Your task to perform on an android device: toggle pop-ups in chrome Image 0: 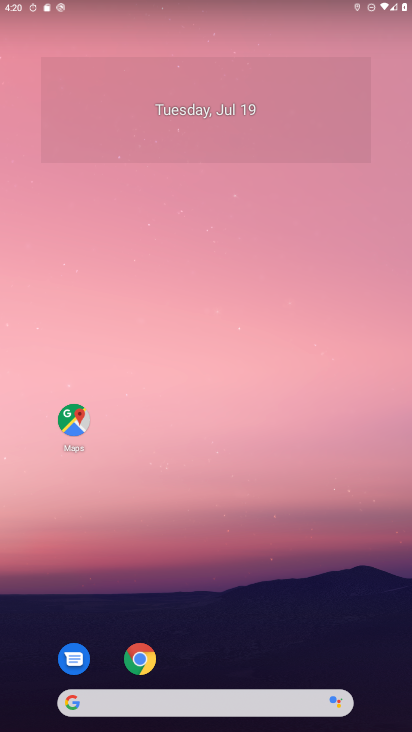
Step 0: drag from (234, 628) to (203, 41)
Your task to perform on an android device: toggle pop-ups in chrome Image 1: 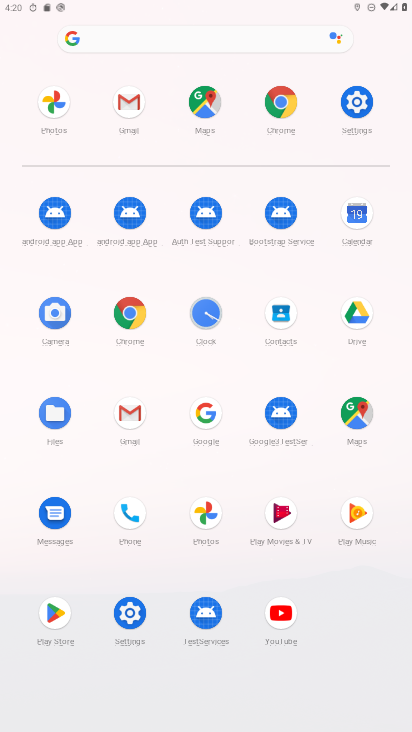
Step 1: click (289, 107)
Your task to perform on an android device: toggle pop-ups in chrome Image 2: 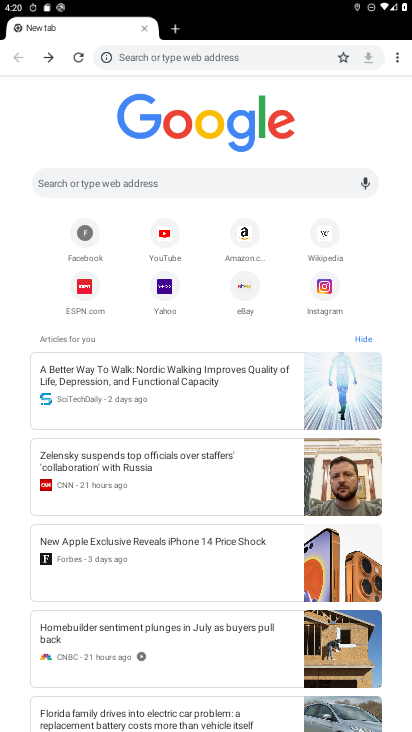
Step 2: drag from (390, 53) to (315, 261)
Your task to perform on an android device: toggle pop-ups in chrome Image 3: 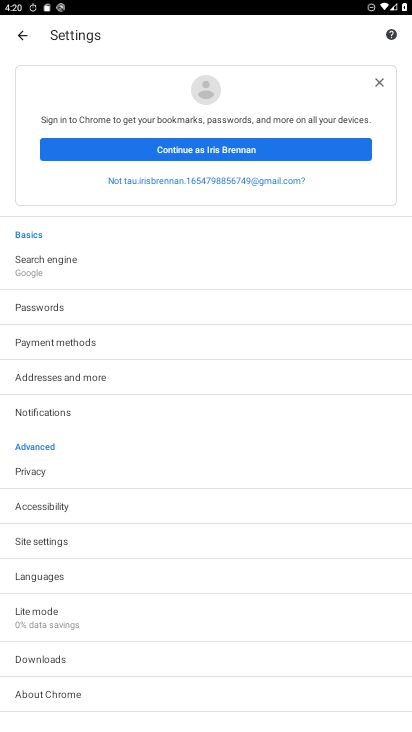
Step 3: click (54, 532)
Your task to perform on an android device: toggle pop-ups in chrome Image 4: 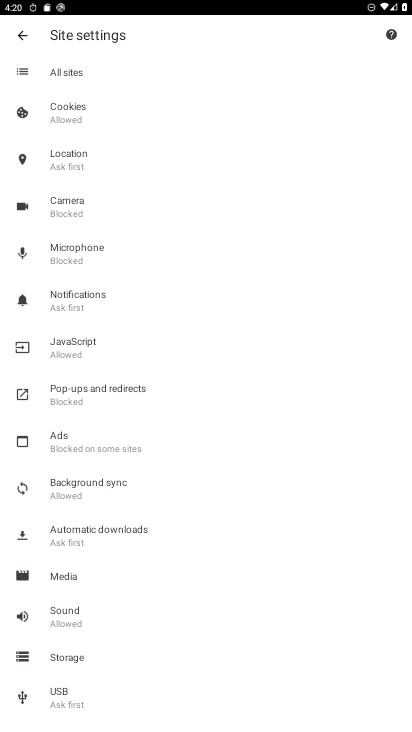
Step 4: click (48, 399)
Your task to perform on an android device: toggle pop-ups in chrome Image 5: 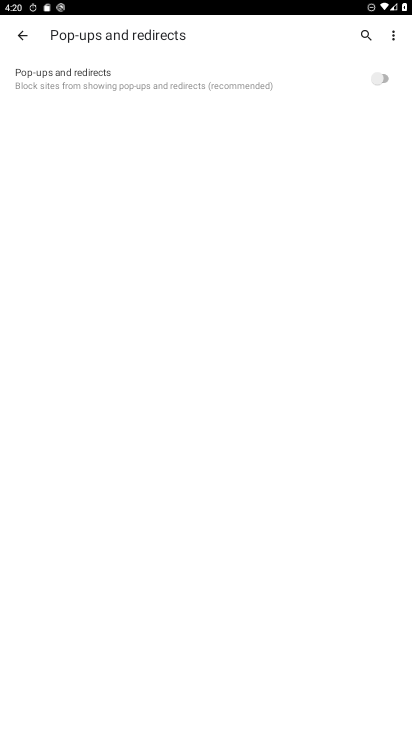
Step 5: click (370, 77)
Your task to perform on an android device: toggle pop-ups in chrome Image 6: 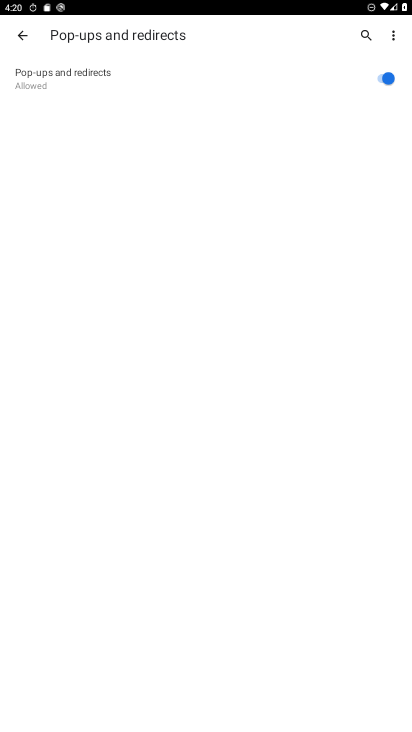
Step 6: task complete